Your task to perform on an android device: turn off priority inbox in the gmail app Image 0: 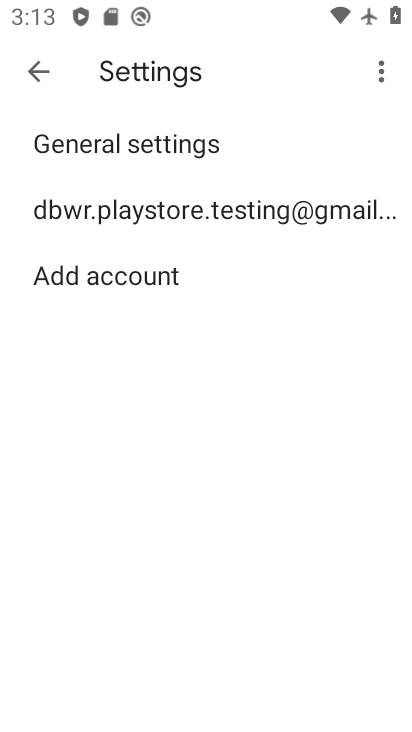
Step 0: press home button
Your task to perform on an android device: turn off priority inbox in the gmail app Image 1: 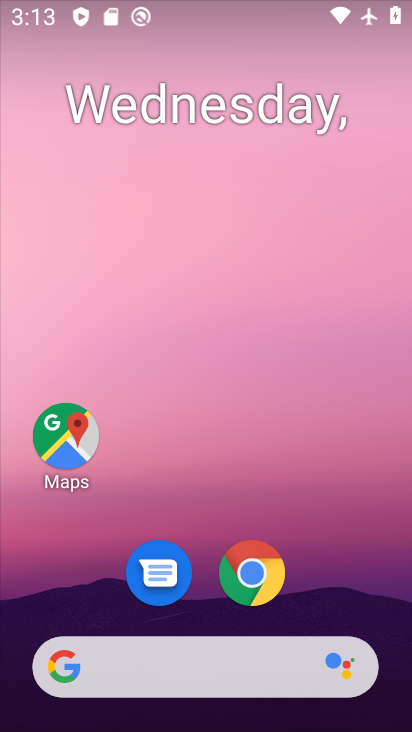
Step 1: drag from (130, 633) to (256, 255)
Your task to perform on an android device: turn off priority inbox in the gmail app Image 2: 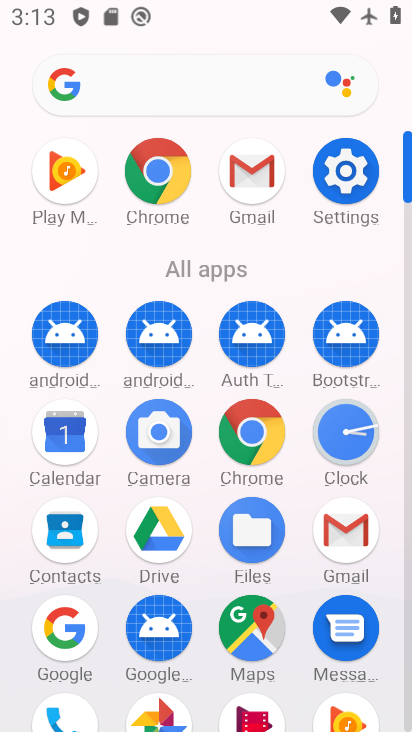
Step 2: click (256, 181)
Your task to perform on an android device: turn off priority inbox in the gmail app Image 3: 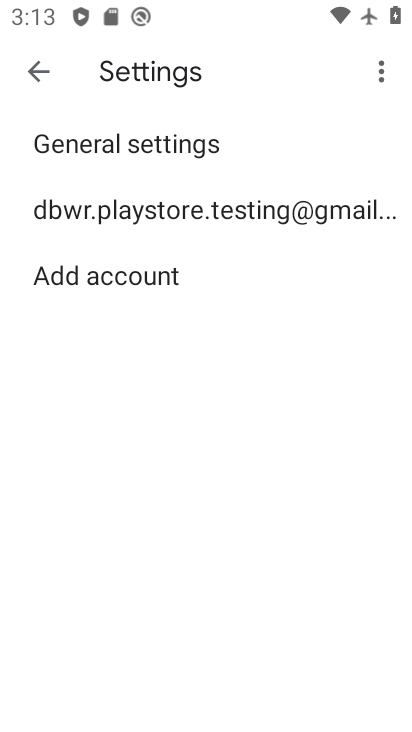
Step 3: click (83, 199)
Your task to perform on an android device: turn off priority inbox in the gmail app Image 4: 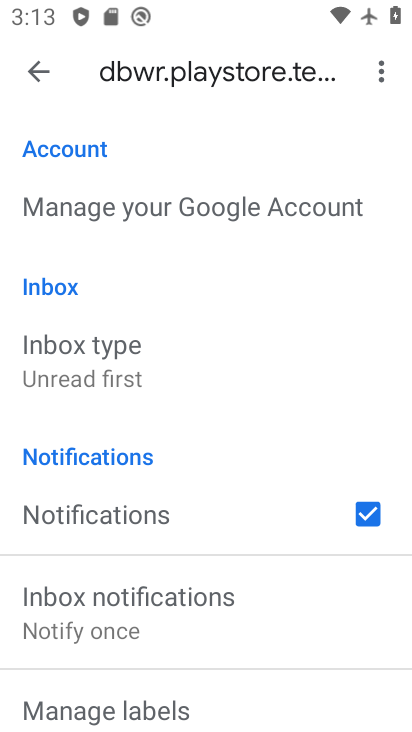
Step 4: click (104, 383)
Your task to perform on an android device: turn off priority inbox in the gmail app Image 5: 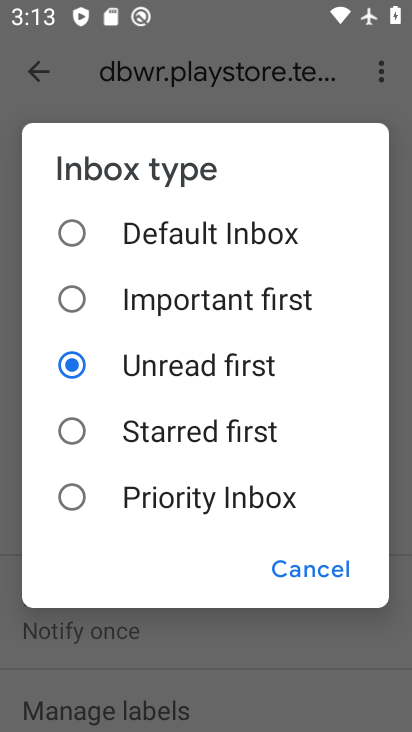
Step 5: click (307, 556)
Your task to perform on an android device: turn off priority inbox in the gmail app Image 6: 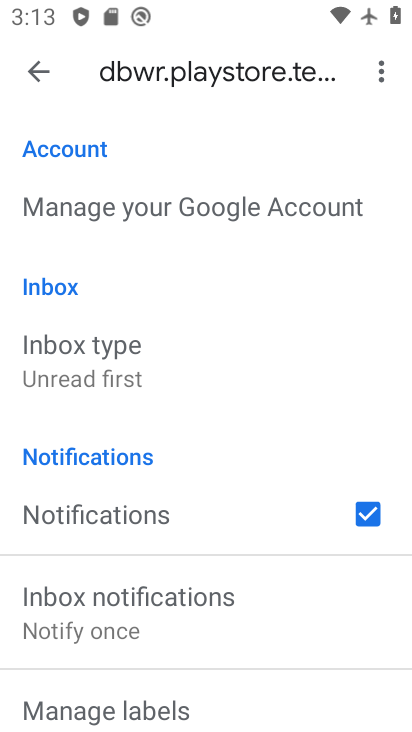
Step 6: task complete